Your task to perform on an android device: Search for vegetarian restaurants on Maps Image 0: 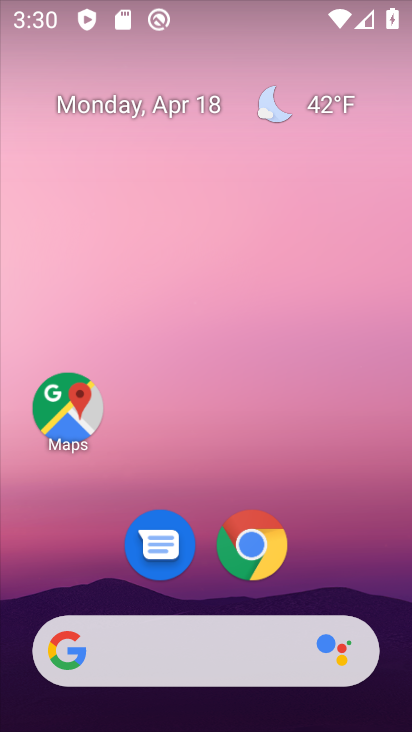
Step 0: drag from (340, 567) to (353, 102)
Your task to perform on an android device: Search for vegetarian restaurants on Maps Image 1: 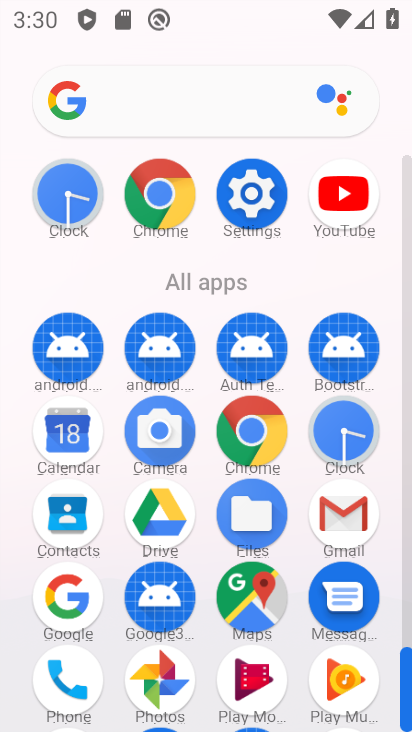
Step 1: click (265, 601)
Your task to perform on an android device: Search for vegetarian restaurants on Maps Image 2: 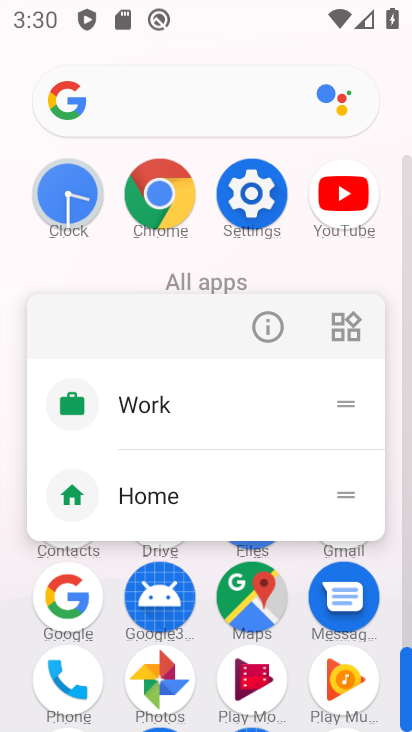
Step 2: click (251, 589)
Your task to perform on an android device: Search for vegetarian restaurants on Maps Image 3: 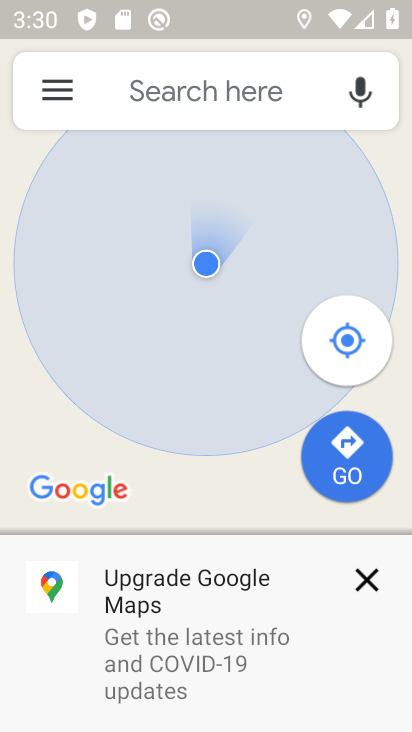
Step 3: click (215, 90)
Your task to perform on an android device: Search for vegetarian restaurants on Maps Image 4: 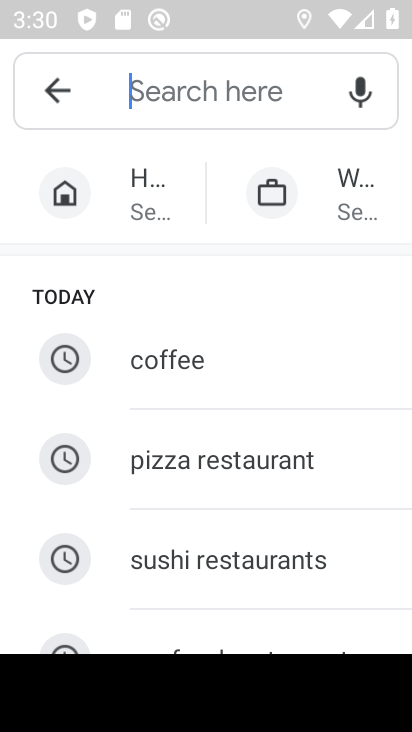
Step 4: type "vegetrain"
Your task to perform on an android device: Search for vegetarian restaurants on Maps Image 5: 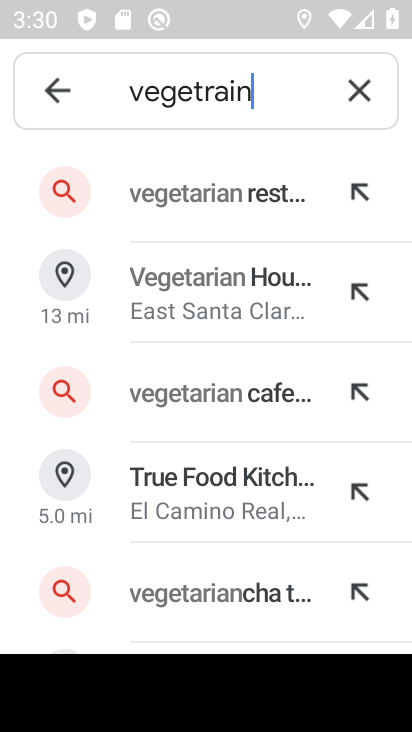
Step 5: click (185, 195)
Your task to perform on an android device: Search for vegetarian restaurants on Maps Image 6: 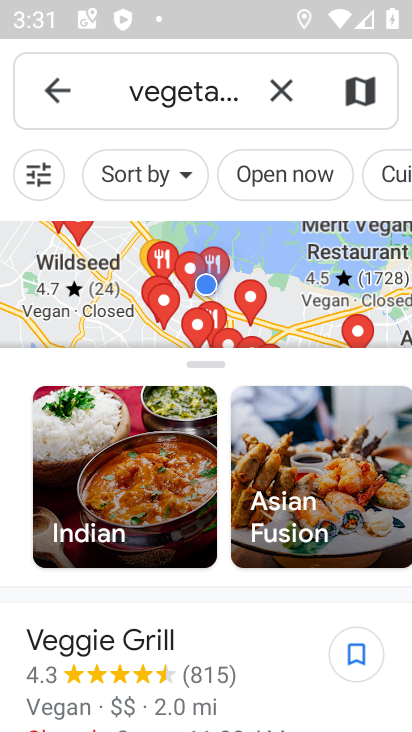
Step 6: task complete